Your task to perform on an android device: Search for razer deathadder on ebay, select the first entry, and add it to the cart. Image 0: 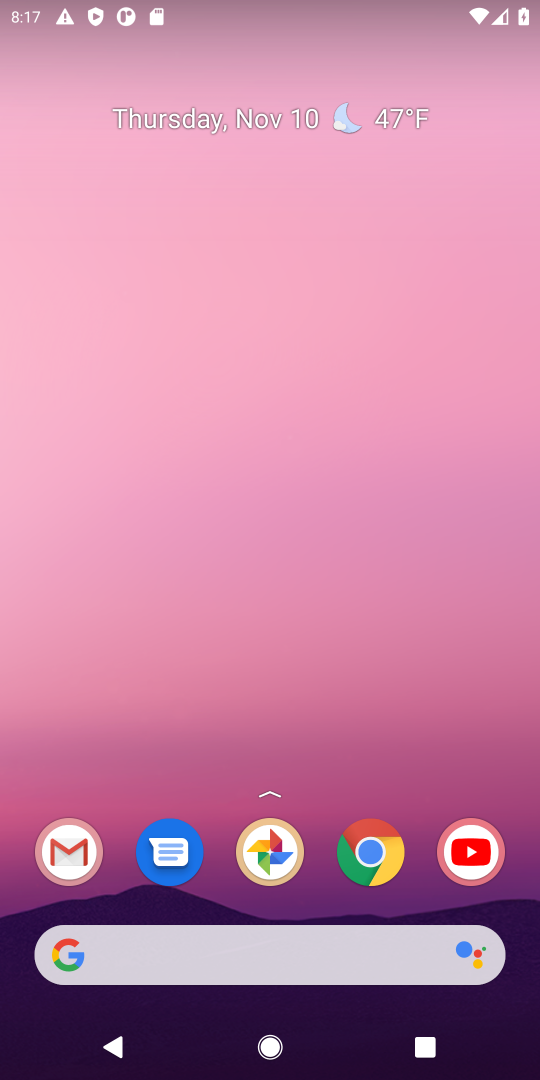
Step 0: click (376, 858)
Your task to perform on an android device: Search for razer deathadder on ebay, select the first entry, and add it to the cart. Image 1: 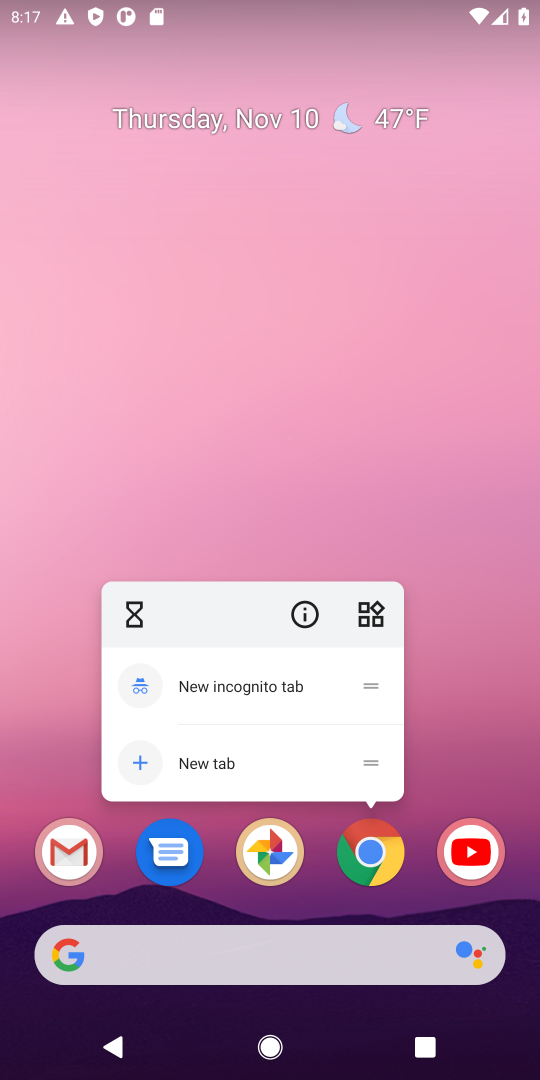
Step 1: click (376, 861)
Your task to perform on an android device: Search for razer deathadder on ebay, select the first entry, and add it to the cart. Image 2: 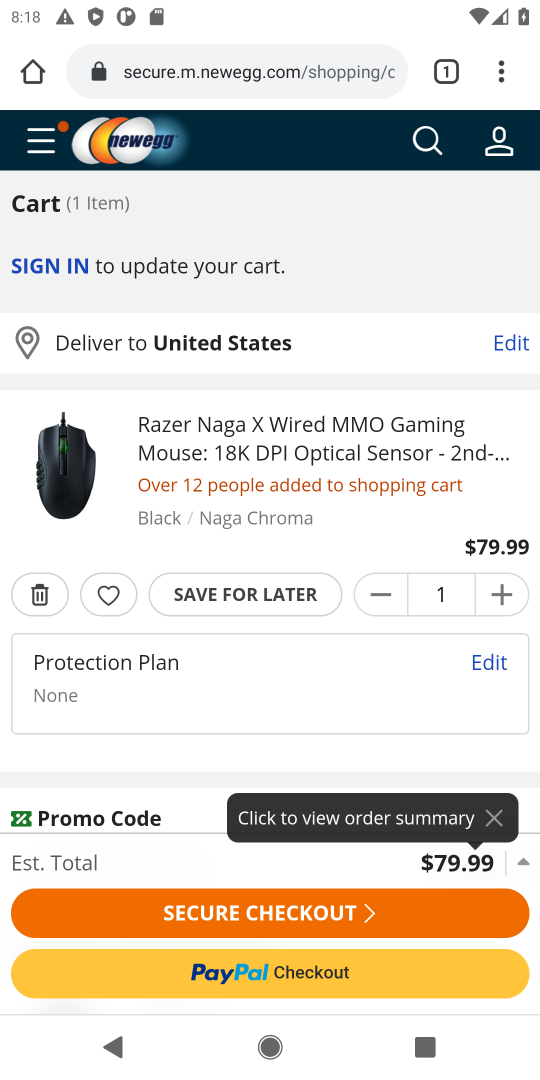
Step 2: click (248, 72)
Your task to perform on an android device: Search for razer deathadder on ebay, select the first entry, and add it to the cart. Image 3: 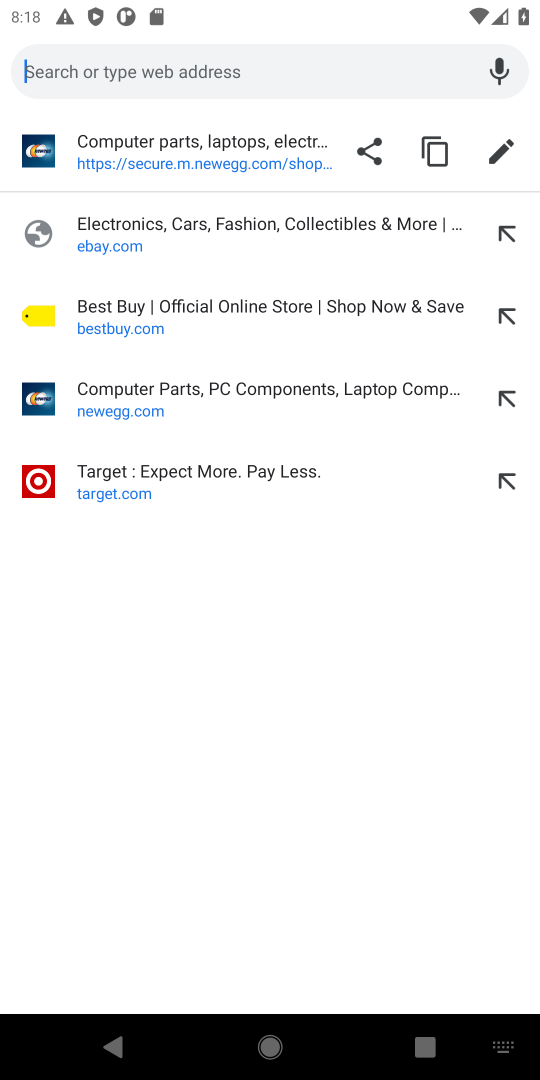
Step 3: type "ebay"
Your task to perform on an android device: Search for razer deathadder on ebay, select the first entry, and add it to the cart. Image 4: 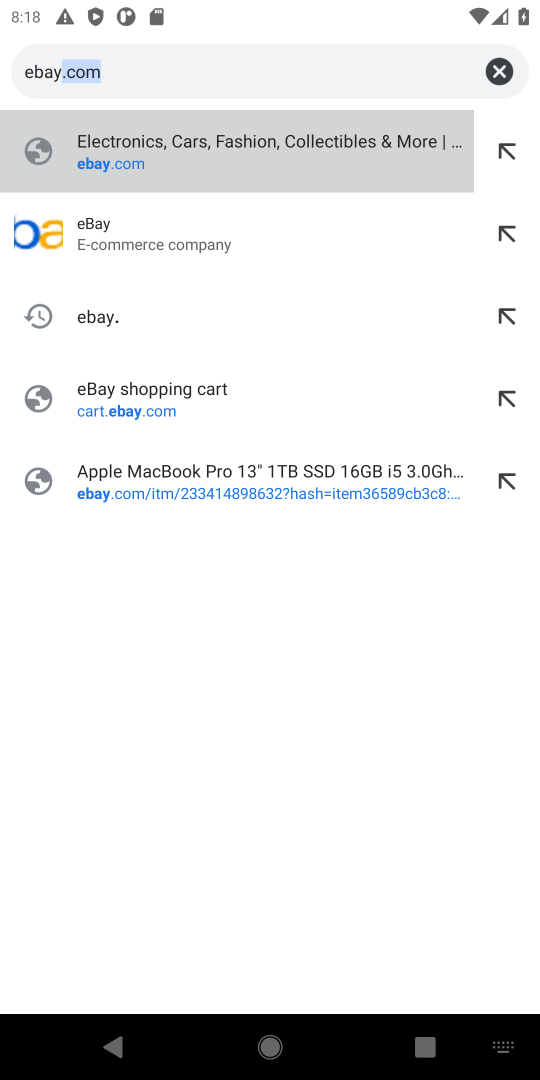
Step 4: press enter
Your task to perform on an android device: Search for razer deathadder on ebay, select the first entry, and add it to the cart. Image 5: 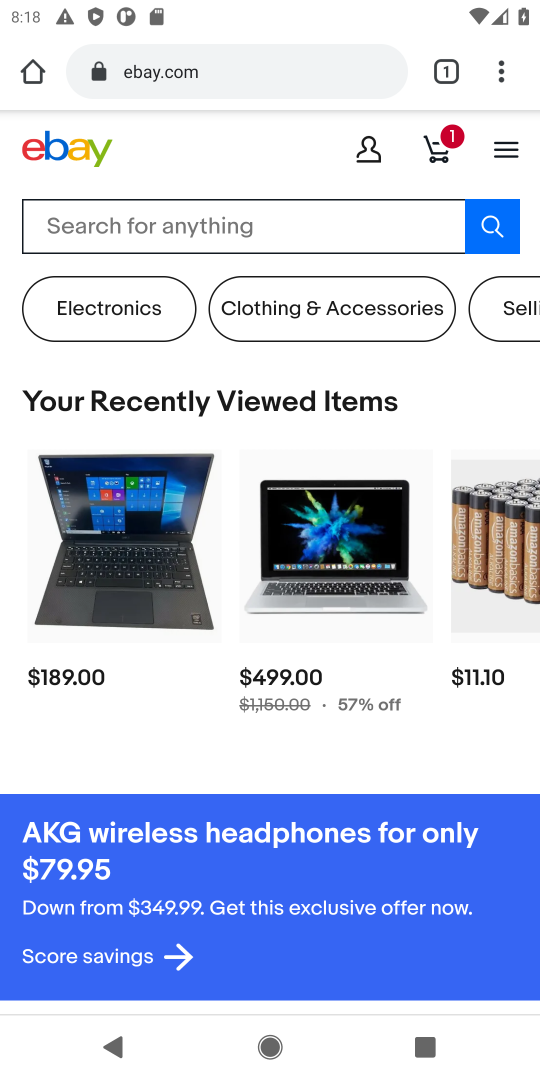
Step 5: click (334, 222)
Your task to perform on an android device: Search for razer deathadder on ebay, select the first entry, and add it to the cart. Image 6: 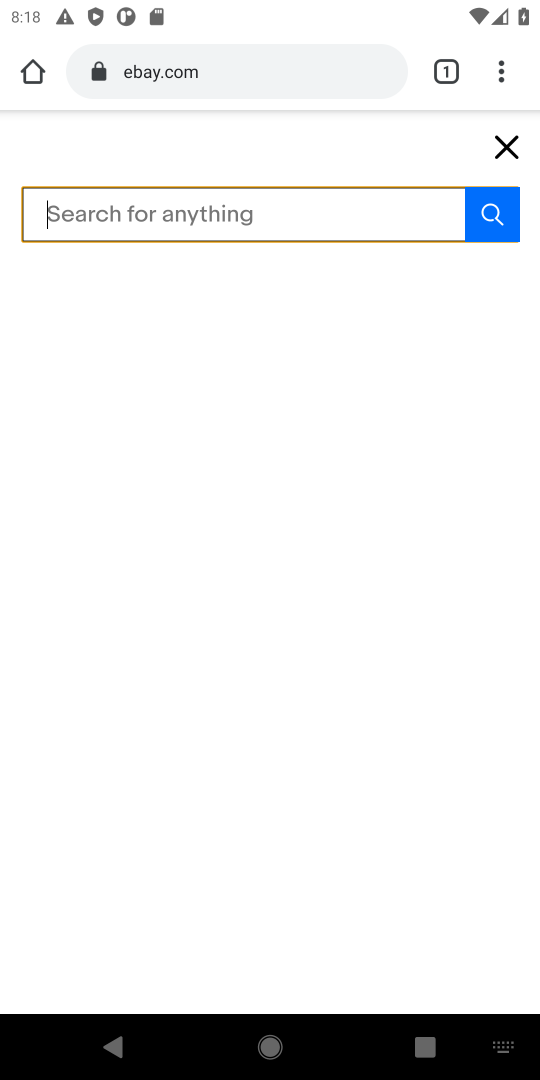
Step 6: type "razer deathadder"
Your task to perform on an android device: Search for razer deathadder on ebay, select the first entry, and add it to the cart. Image 7: 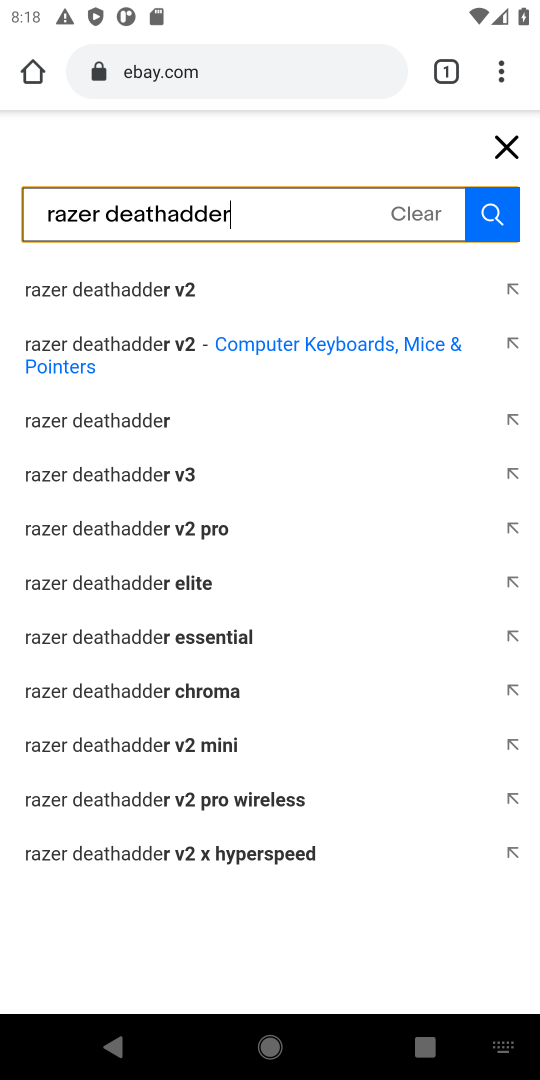
Step 7: press enter
Your task to perform on an android device: Search for razer deathadder on ebay, select the first entry, and add it to the cart. Image 8: 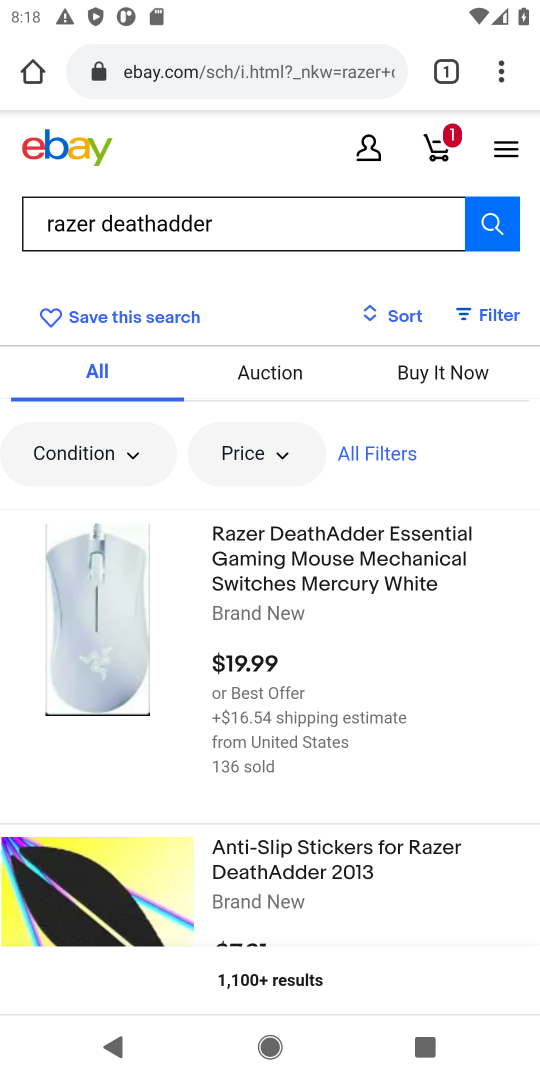
Step 8: click (273, 572)
Your task to perform on an android device: Search for razer deathadder on ebay, select the first entry, and add it to the cart. Image 9: 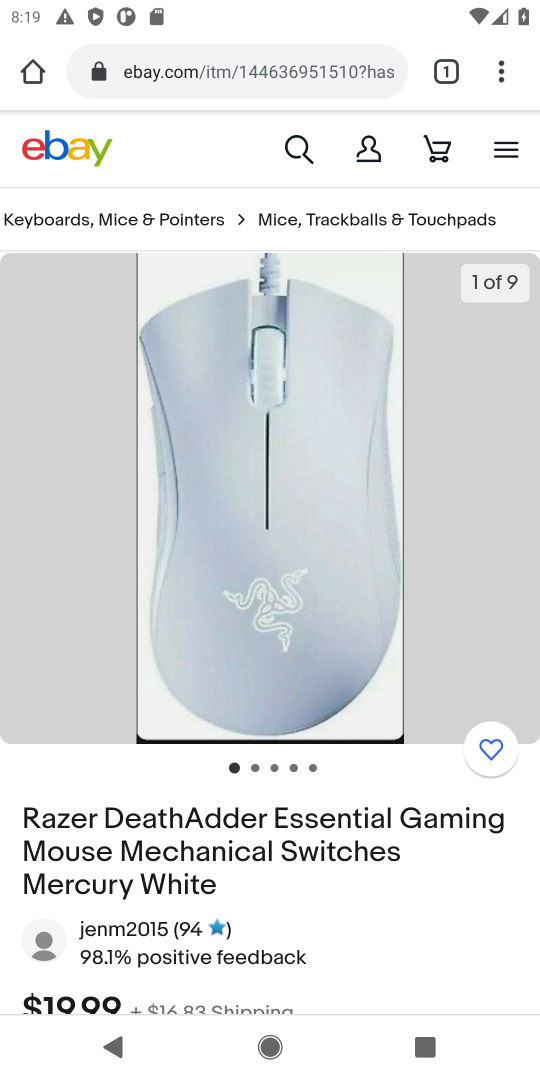
Step 9: drag from (255, 797) to (376, 212)
Your task to perform on an android device: Search for razer deathadder on ebay, select the first entry, and add it to the cart. Image 10: 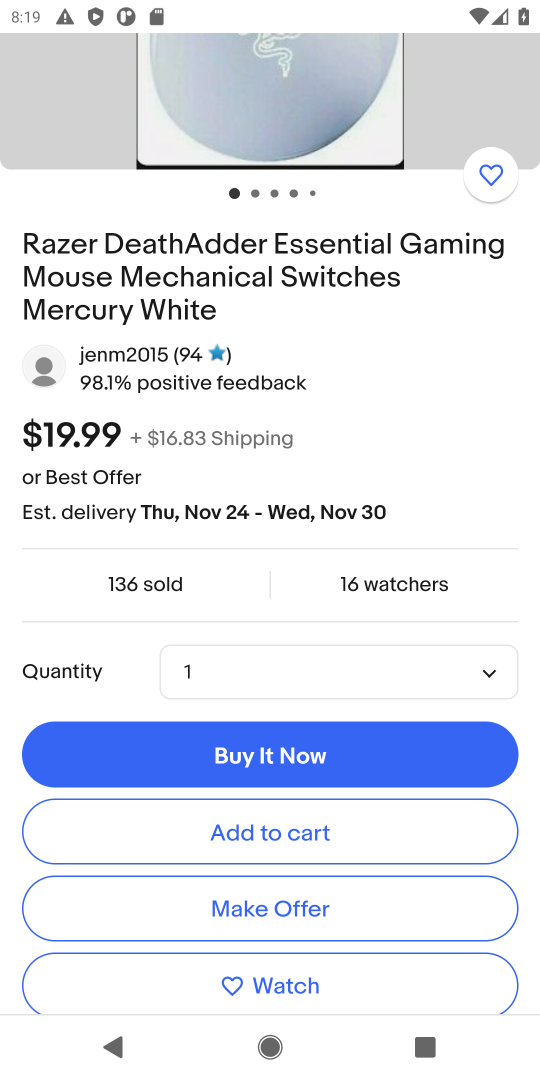
Step 10: click (299, 833)
Your task to perform on an android device: Search for razer deathadder on ebay, select the first entry, and add it to the cart. Image 11: 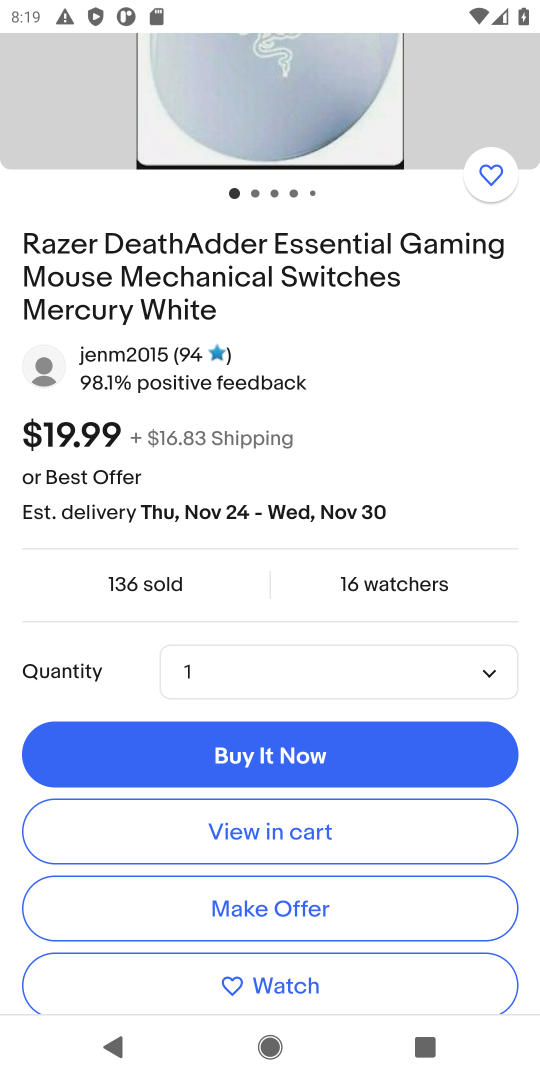
Step 11: drag from (455, 350) to (305, 1046)
Your task to perform on an android device: Search for razer deathadder on ebay, select the first entry, and add it to the cart. Image 12: 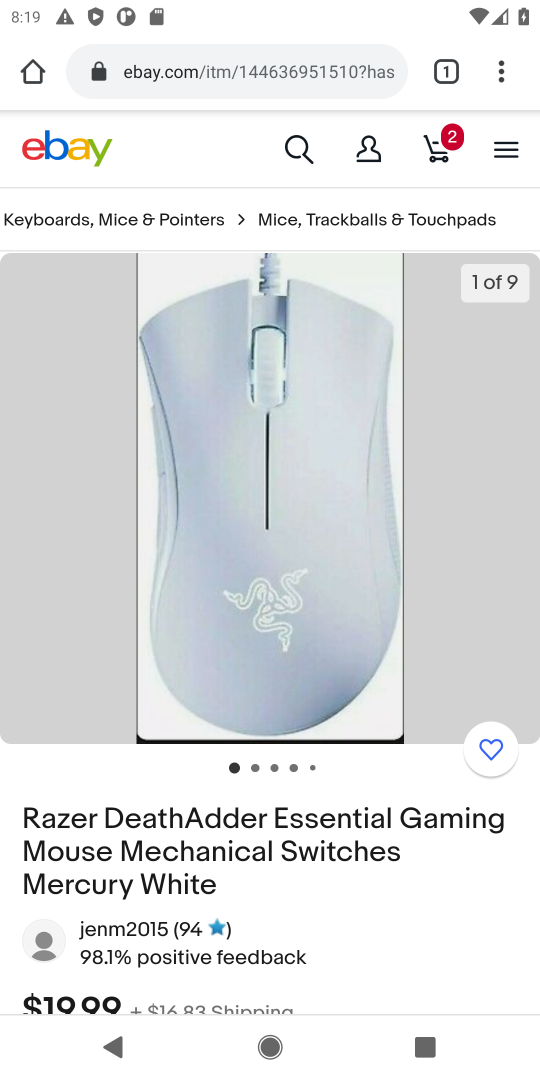
Step 12: click (445, 140)
Your task to perform on an android device: Search for razer deathadder on ebay, select the first entry, and add it to the cart. Image 13: 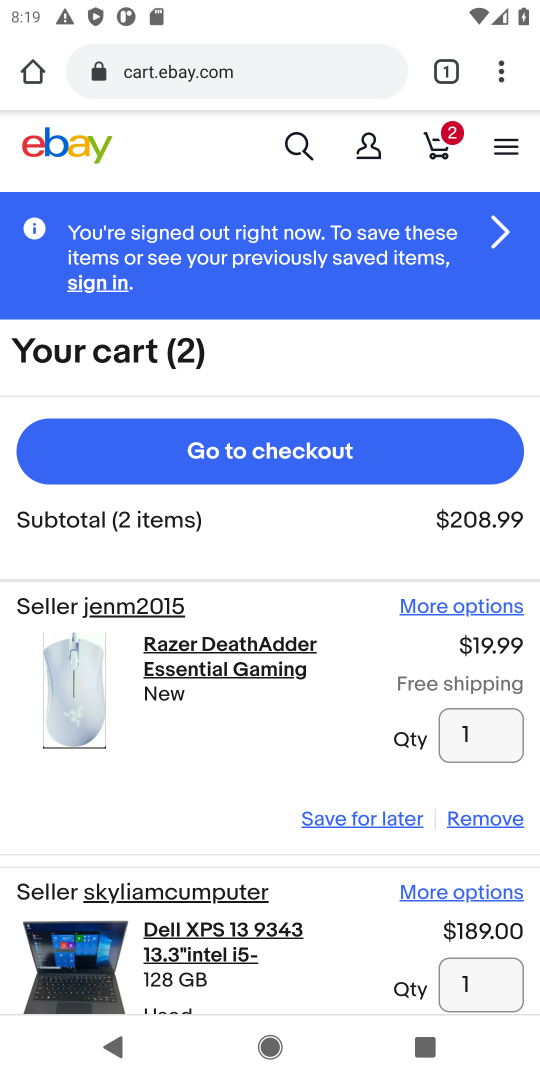
Step 13: drag from (246, 740) to (287, 485)
Your task to perform on an android device: Search for razer deathadder on ebay, select the first entry, and add it to the cart. Image 14: 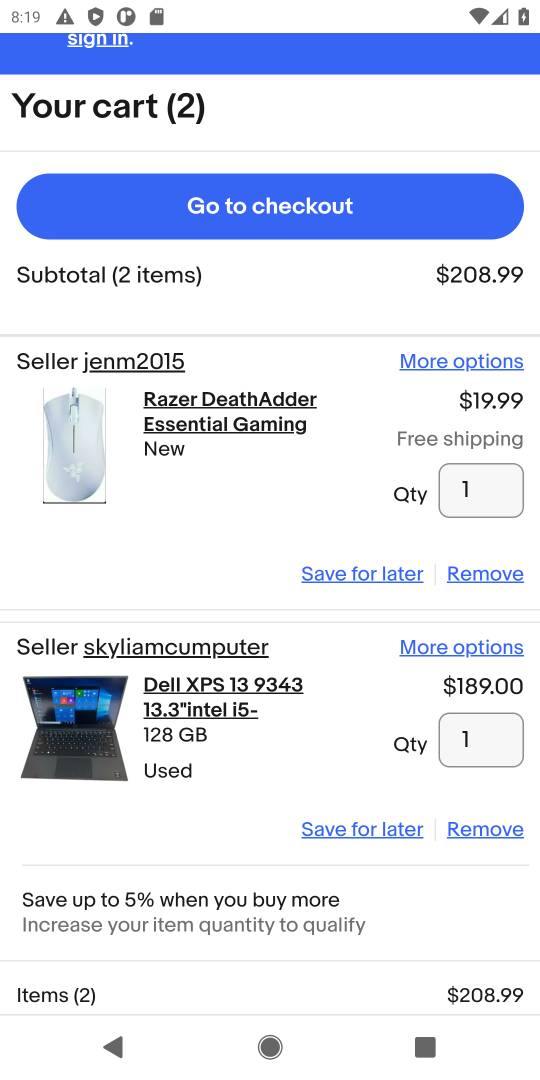
Step 14: click (471, 824)
Your task to perform on an android device: Search for razer deathadder on ebay, select the first entry, and add it to the cart. Image 15: 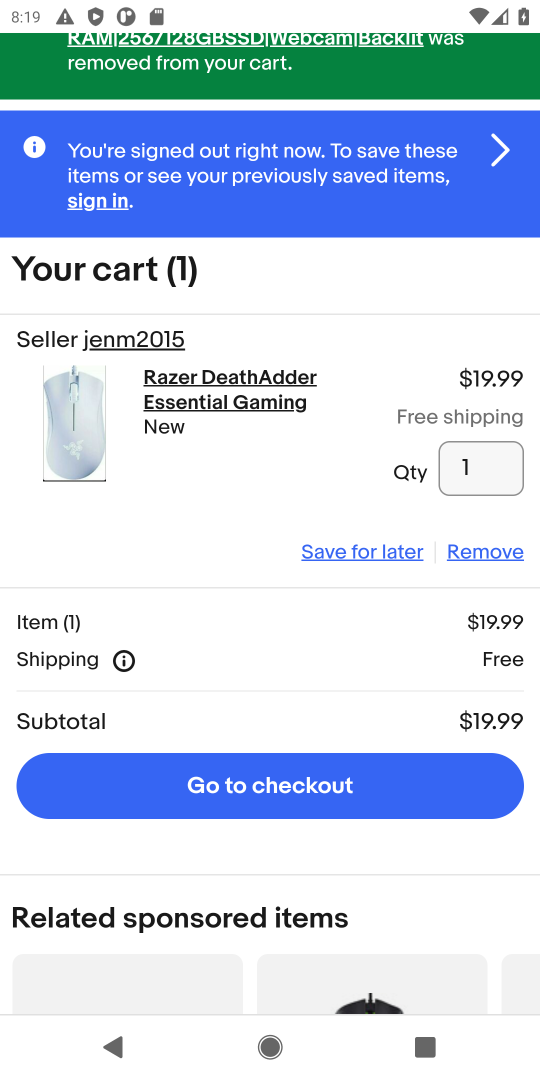
Step 15: task complete